Your task to perform on an android device: turn off location Image 0: 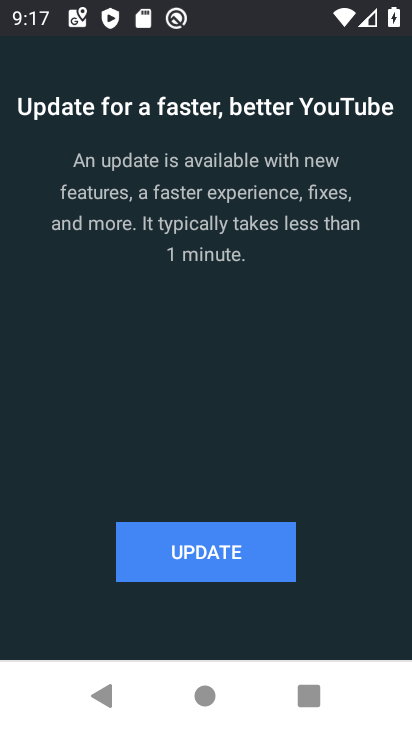
Step 0: press back button
Your task to perform on an android device: turn off location Image 1: 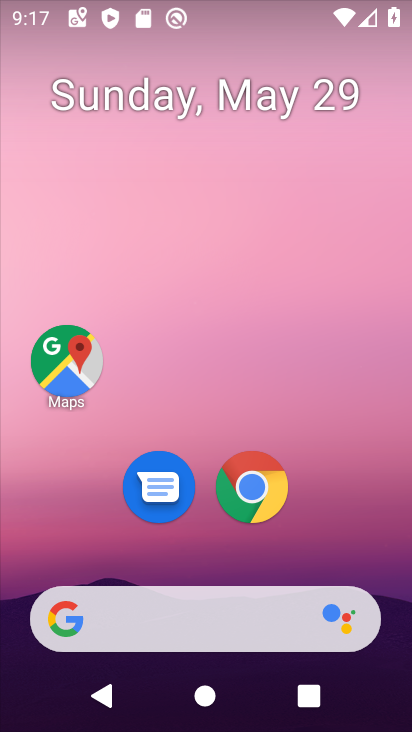
Step 1: drag from (175, 644) to (189, 250)
Your task to perform on an android device: turn off location Image 2: 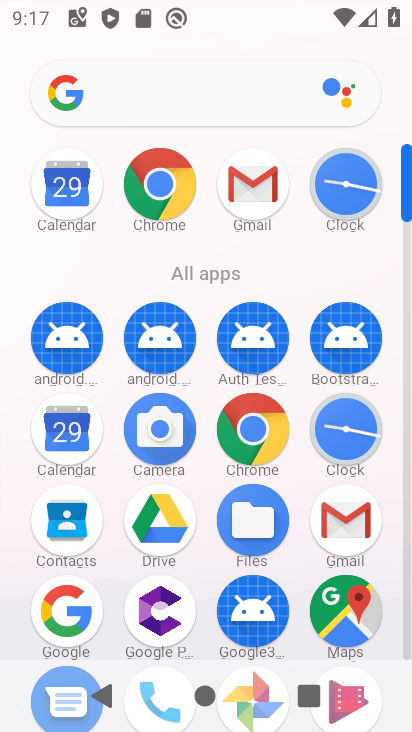
Step 2: drag from (110, 501) to (116, 214)
Your task to perform on an android device: turn off location Image 3: 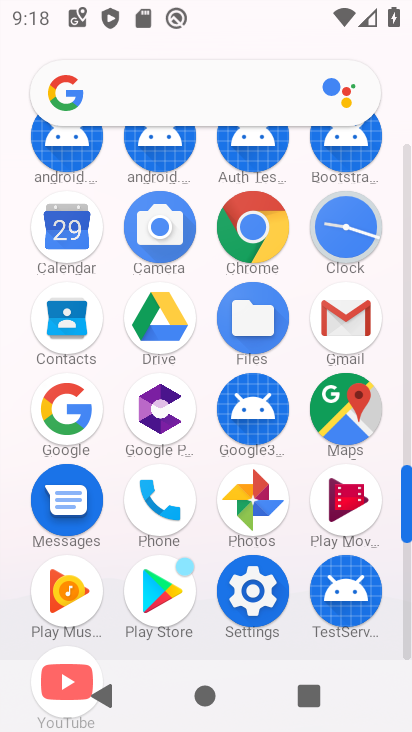
Step 3: click (254, 611)
Your task to perform on an android device: turn off location Image 4: 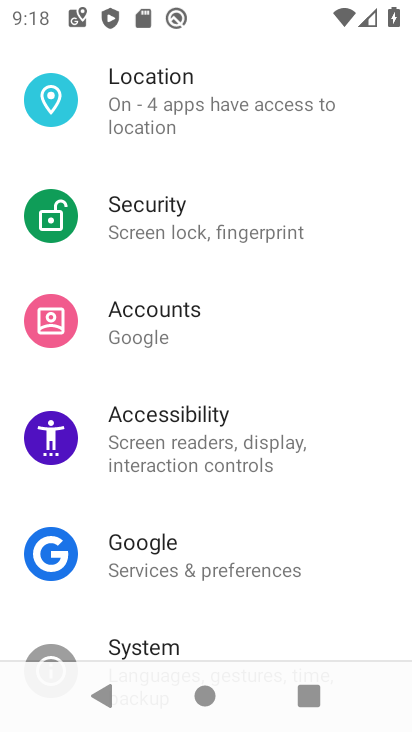
Step 4: drag from (237, 174) to (232, 473)
Your task to perform on an android device: turn off location Image 5: 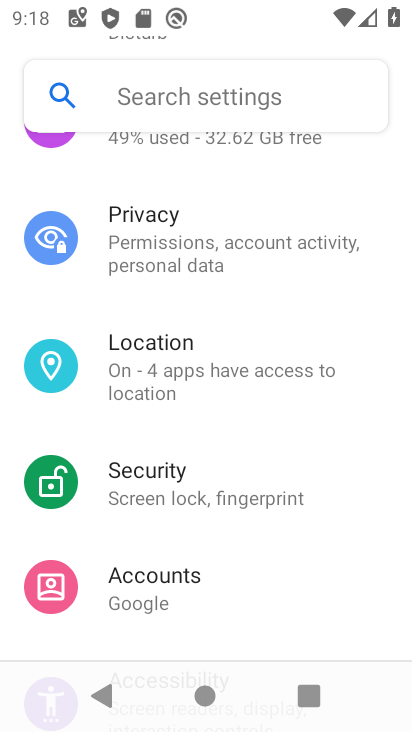
Step 5: click (209, 377)
Your task to perform on an android device: turn off location Image 6: 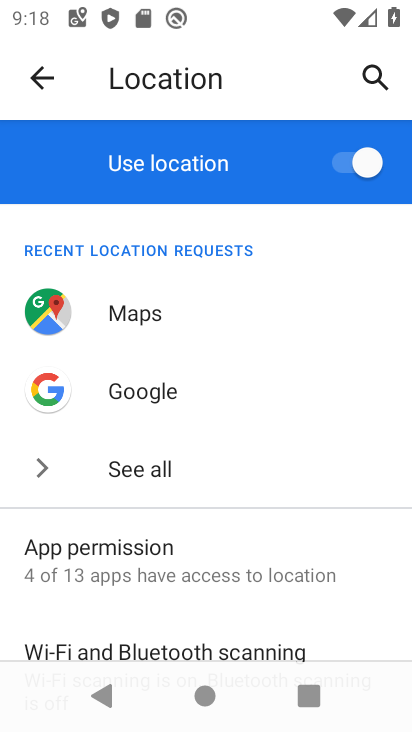
Step 6: drag from (225, 558) to (232, 268)
Your task to perform on an android device: turn off location Image 7: 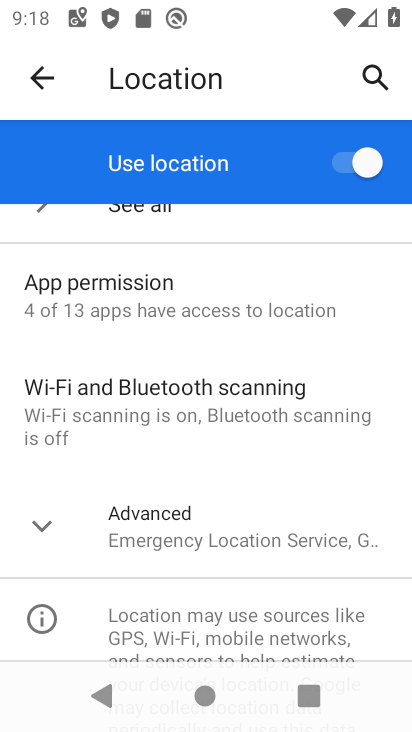
Step 7: click (367, 159)
Your task to perform on an android device: turn off location Image 8: 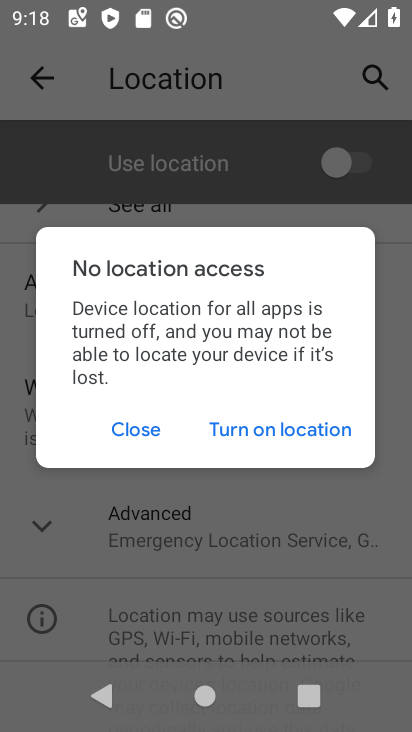
Step 8: click (143, 442)
Your task to perform on an android device: turn off location Image 9: 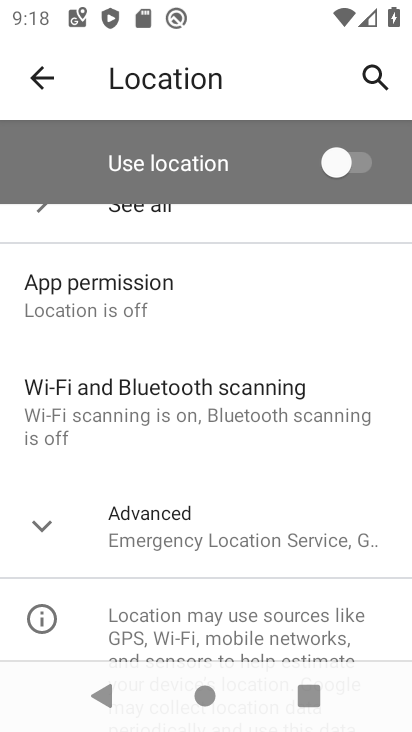
Step 9: task complete